Your task to perform on an android device: turn on bluetooth scan Image 0: 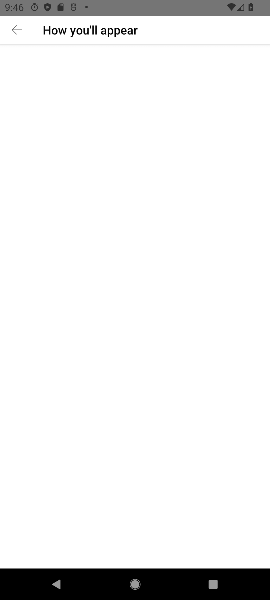
Step 0: press home button
Your task to perform on an android device: turn on bluetooth scan Image 1: 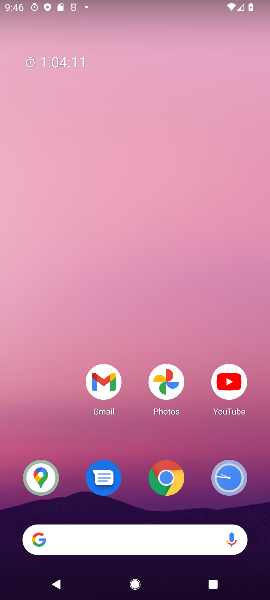
Step 1: drag from (164, 549) to (164, 85)
Your task to perform on an android device: turn on bluetooth scan Image 2: 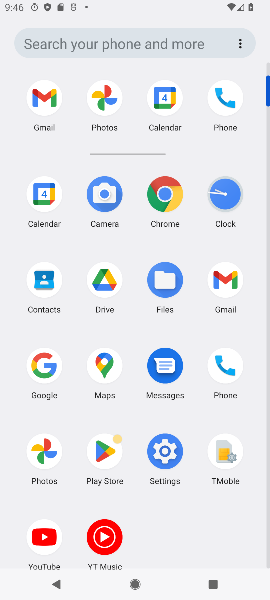
Step 2: click (169, 189)
Your task to perform on an android device: turn on bluetooth scan Image 3: 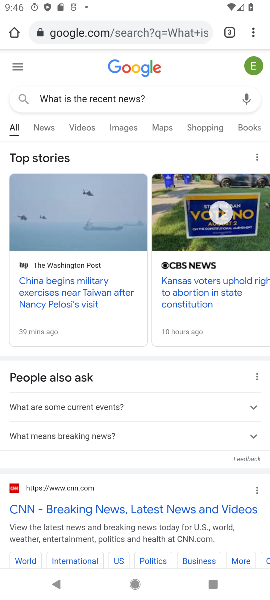
Step 3: drag from (252, 33) to (158, 440)
Your task to perform on an android device: turn on bluetooth scan Image 4: 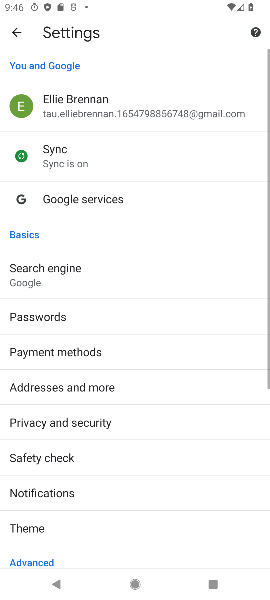
Step 4: drag from (115, 396) to (148, 0)
Your task to perform on an android device: turn on bluetooth scan Image 5: 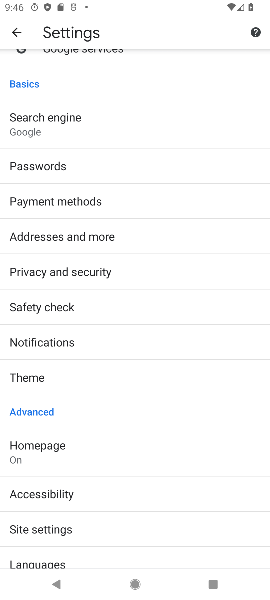
Step 5: click (6, 20)
Your task to perform on an android device: turn on bluetooth scan Image 6: 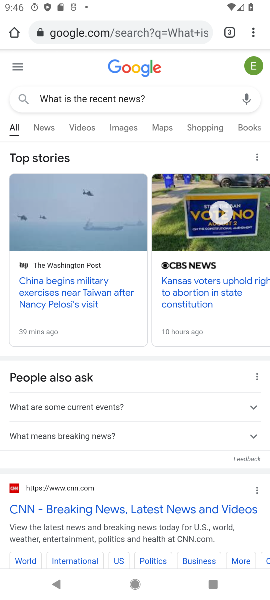
Step 6: press home button
Your task to perform on an android device: turn on bluetooth scan Image 7: 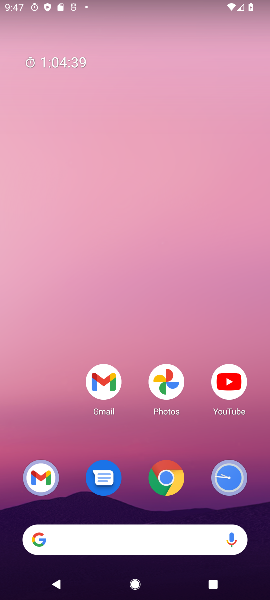
Step 7: drag from (136, 598) to (58, 113)
Your task to perform on an android device: turn on bluetooth scan Image 8: 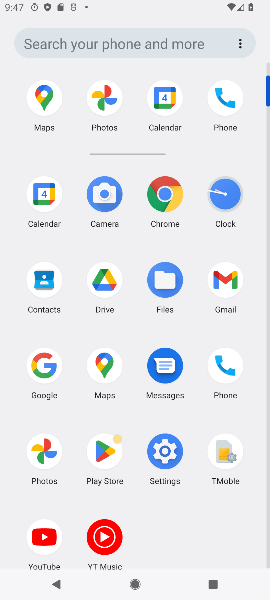
Step 8: click (164, 461)
Your task to perform on an android device: turn on bluetooth scan Image 9: 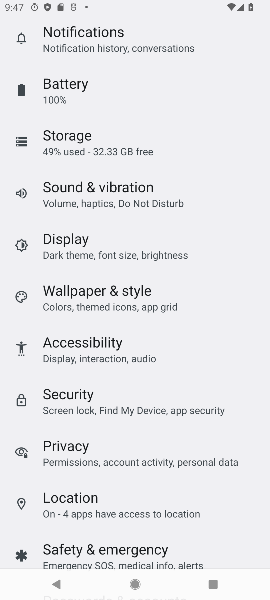
Step 9: click (148, 505)
Your task to perform on an android device: turn on bluetooth scan Image 10: 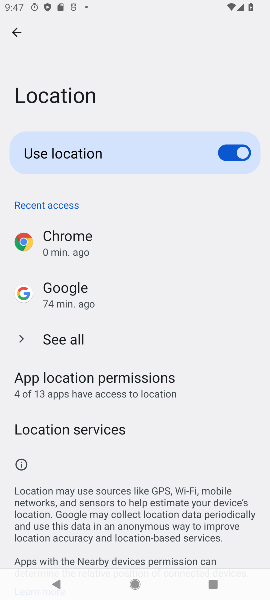
Step 10: drag from (120, 476) to (180, 85)
Your task to perform on an android device: turn on bluetooth scan Image 11: 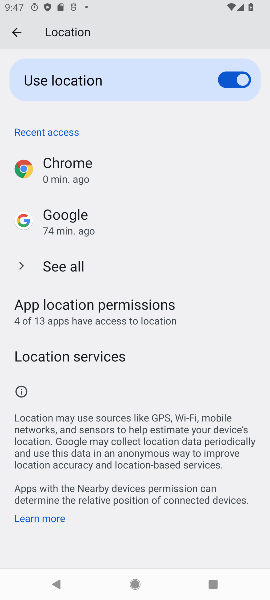
Step 11: click (22, 324)
Your task to perform on an android device: turn on bluetooth scan Image 12: 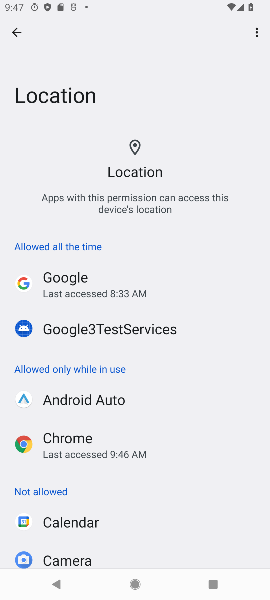
Step 12: click (8, 33)
Your task to perform on an android device: turn on bluetooth scan Image 13: 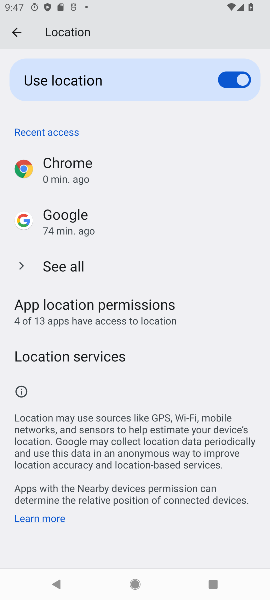
Step 13: click (17, 29)
Your task to perform on an android device: turn on bluetooth scan Image 14: 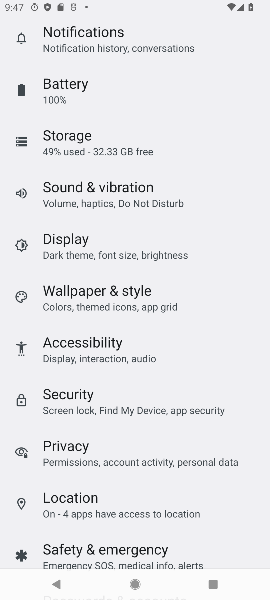
Step 14: task complete